Your task to perform on an android device: install app "Duolingo: language lessons" Image 0: 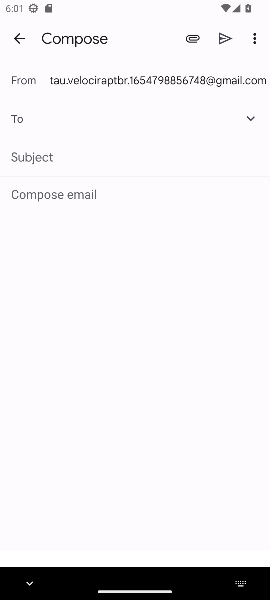
Step 0: press home button
Your task to perform on an android device: install app "Duolingo: language lessons" Image 1: 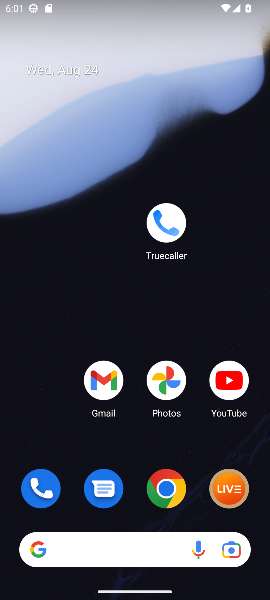
Step 1: drag from (128, 511) to (155, 107)
Your task to perform on an android device: install app "Duolingo: language lessons" Image 2: 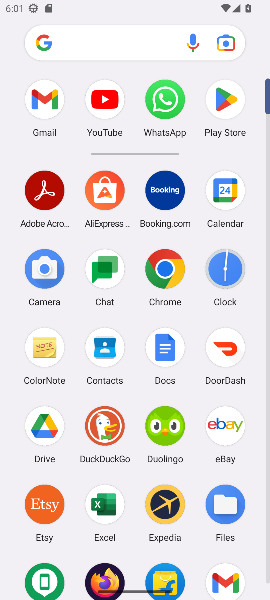
Step 2: click (223, 84)
Your task to perform on an android device: install app "Duolingo: language lessons" Image 3: 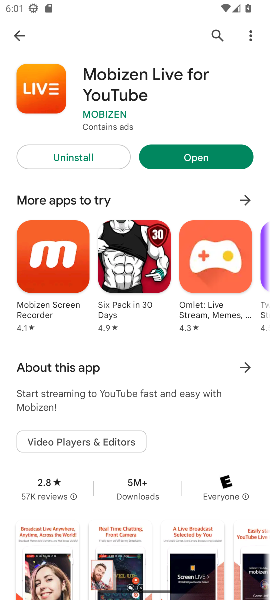
Step 3: click (208, 38)
Your task to perform on an android device: install app "Duolingo: language lessons" Image 4: 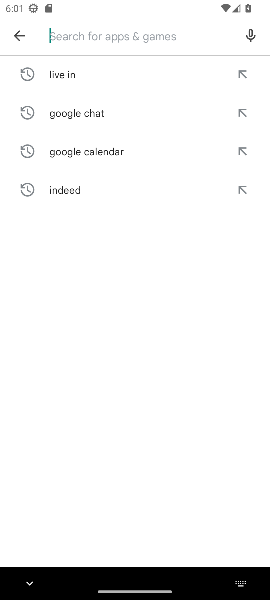
Step 4: click (256, 38)
Your task to perform on an android device: install app "Duolingo: language lessons" Image 5: 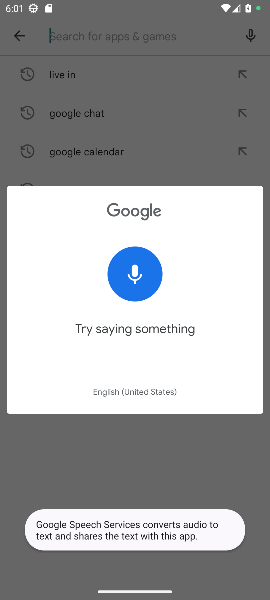
Step 5: click (71, 154)
Your task to perform on an android device: install app "Duolingo: language lessons" Image 6: 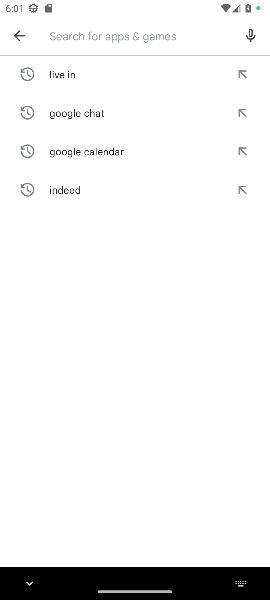
Step 6: click (81, 24)
Your task to perform on an android device: install app "Duolingo: language lessons" Image 7: 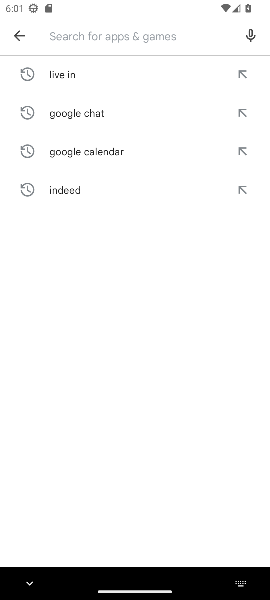
Step 7: type "duolingo"
Your task to perform on an android device: install app "Duolingo: language lessons" Image 8: 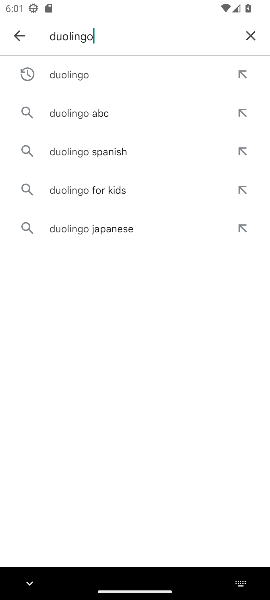
Step 8: click (74, 66)
Your task to perform on an android device: install app "Duolingo: language lessons" Image 9: 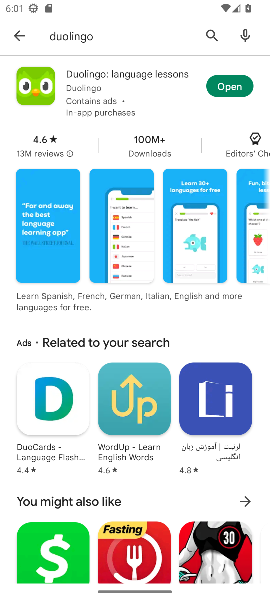
Step 9: click (229, 88)
Your task to perform on an android device: install app "Duolingo: language lessons" Image 10: 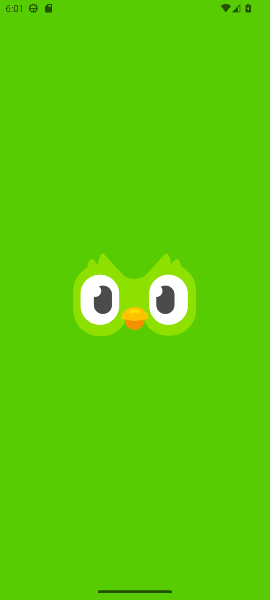
Step 10: task complete